Your task to perform on an android device: What's the weather today? Image 0: 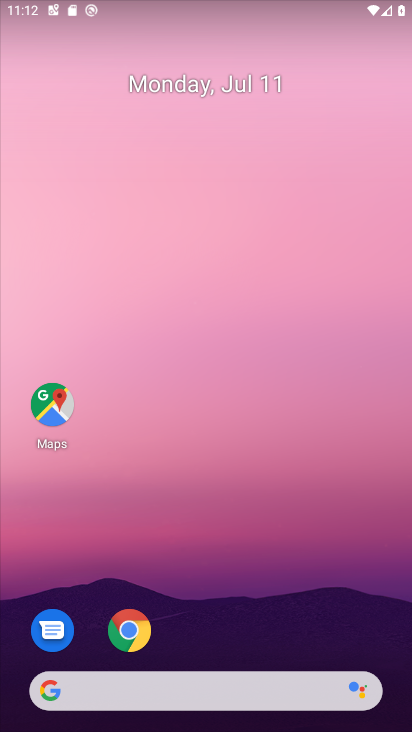
Step 0: drag from (210, 396) to (150, 25)
Your task to perform on an android device: What's the weather today? Image 1: 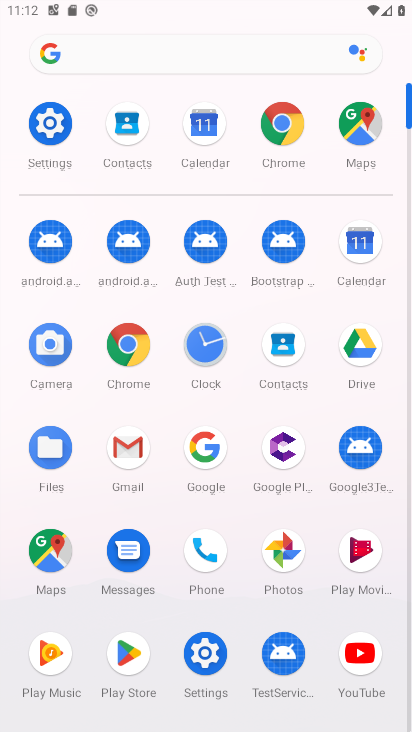
Step 1: click (147, 56)
Your task to perform on an android device: What's the weather today? Image 2: 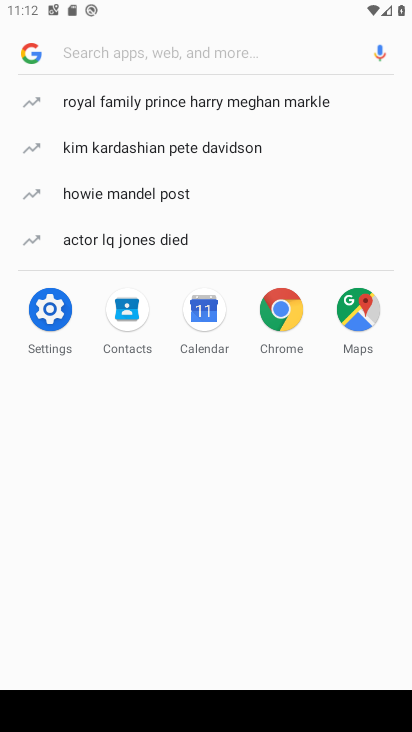
Step 2: type "weather today ?"
Your task to perform on an android device: What's the weather today? Image 3: 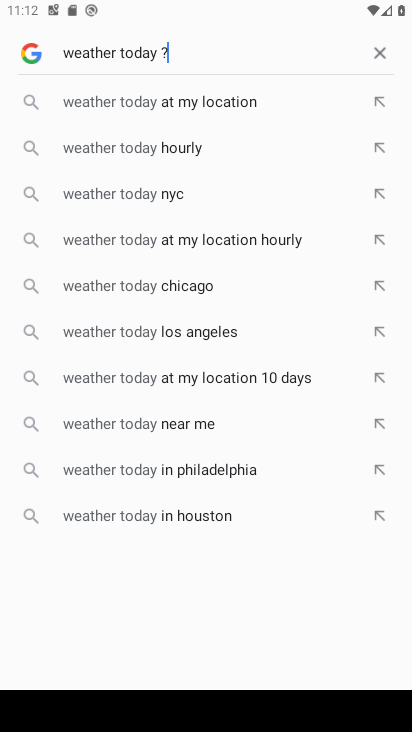
Step 3: click (151, 101)
Your task to perform on an android device: What's the weather today? Image 4: 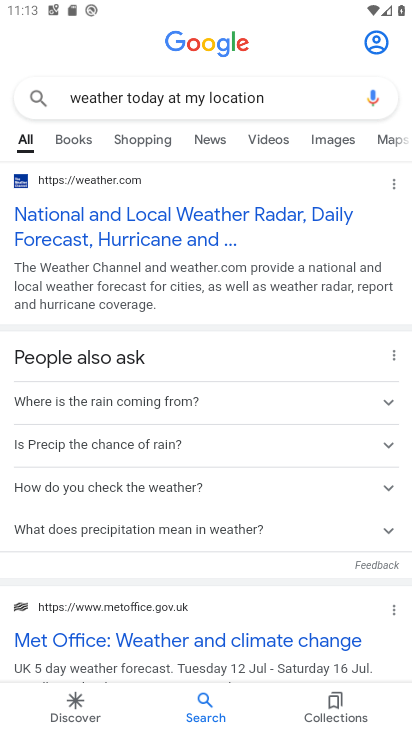
Step 4: task complete